Your task to perform on an android device: toggle priority inbox in the gmail app Image 0: 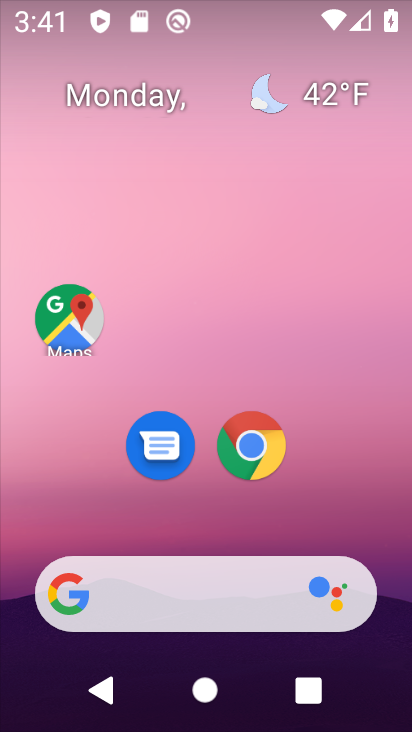
Step 0: drag from (11, 507) to (199, 93)
Your task to perform on an android device: toggle priority inbox in the gmail app Image 1: 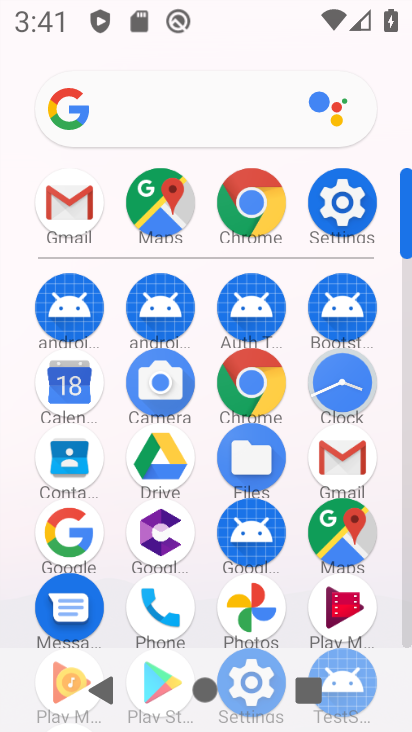
Step 1: click (358, 455)
Your task to perform on an android device: toggle priority inbox in the gmail app Image 2: 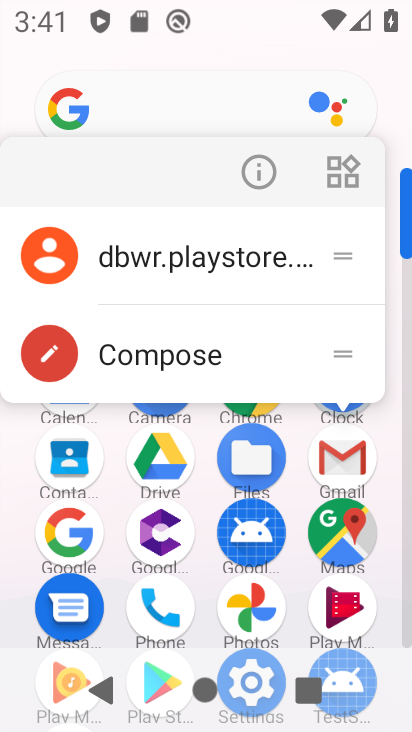
Step 2: click (358, 455)
Your task to perform on an android device: toggle priority inbox in the gmail app Image 3: 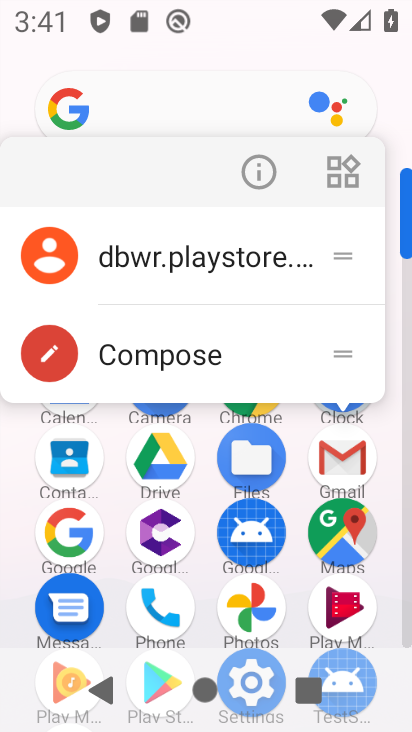
Step 3: click (358, 455)
Your task to perform on an android device: toggle priority inbox in the gmail app Image 4: 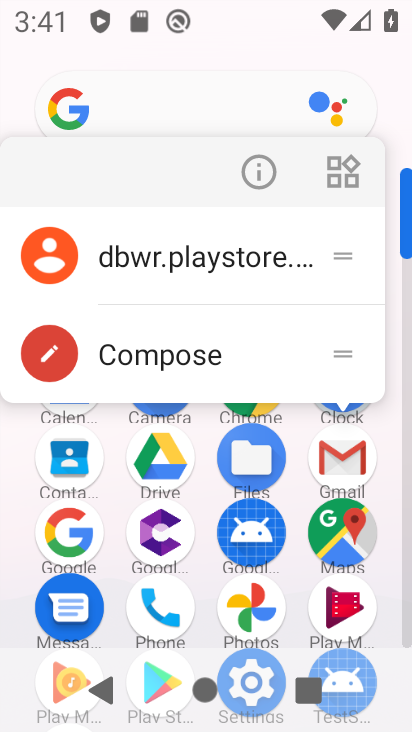
Step 4: click (358, 455)
Your task to perform on an android device: toggle priority inbox in the gmail app Image 5: 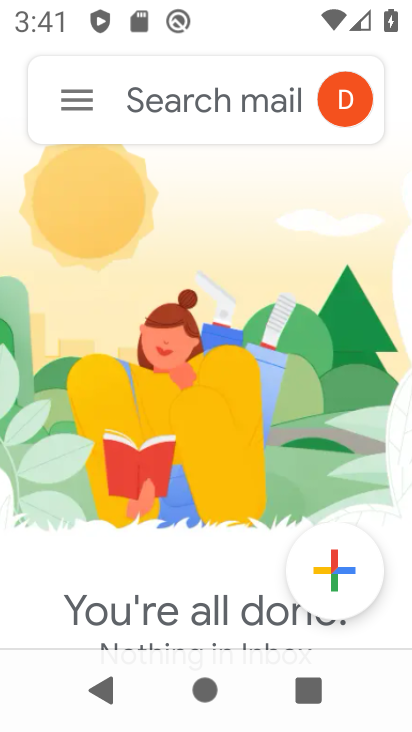
Step 5: click (58, 85)
Your task to perform on an android device: toggle priority inbox in the gmail app Image 6: 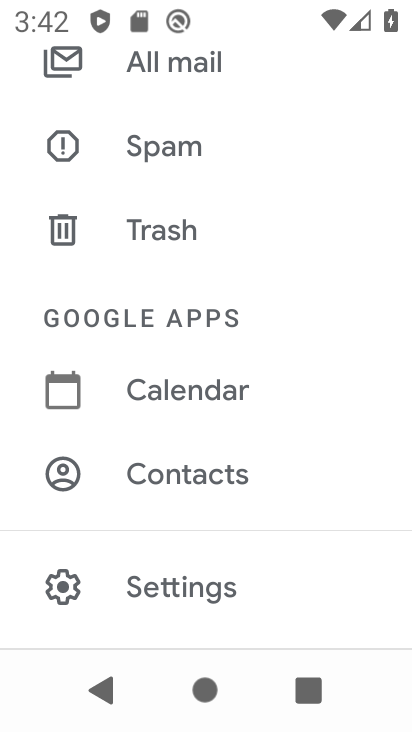
Step 6: click (262, 566)
Your task to perform on an android device: toggle priority inbox in the gmail app Image 7: 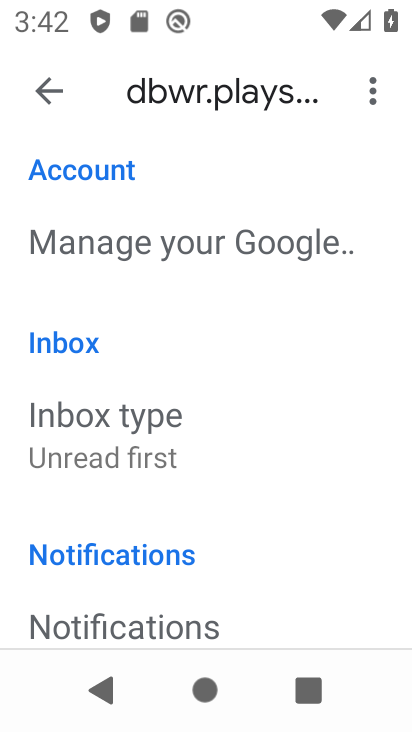
Step 7: click (257, 420)
Your task to perform on an android device: toggle priority inbox in the gmail app Image 8: 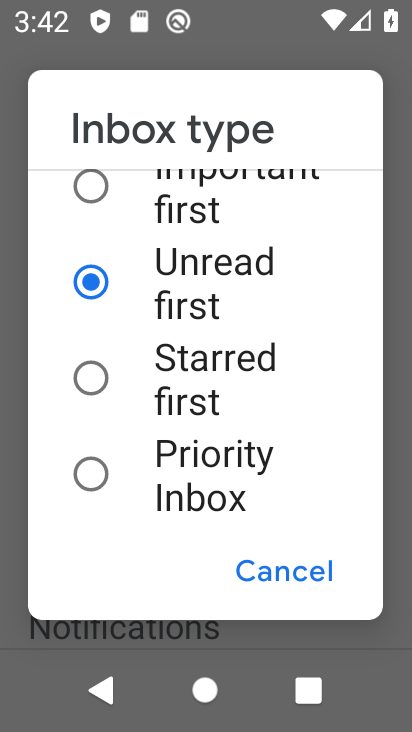
Step 8: click (194, 387)
Your task to perform on an android device: toggle priority inbox in the gmail app Image 9: 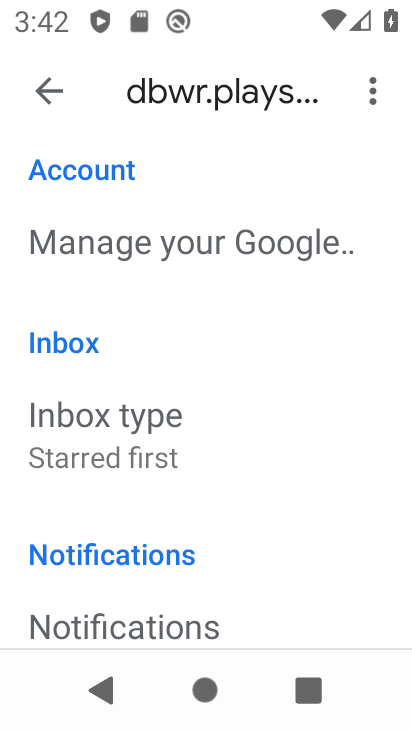
Step 9: task complete